Your task to perform on an android device: Open ESPN.com Image 0: 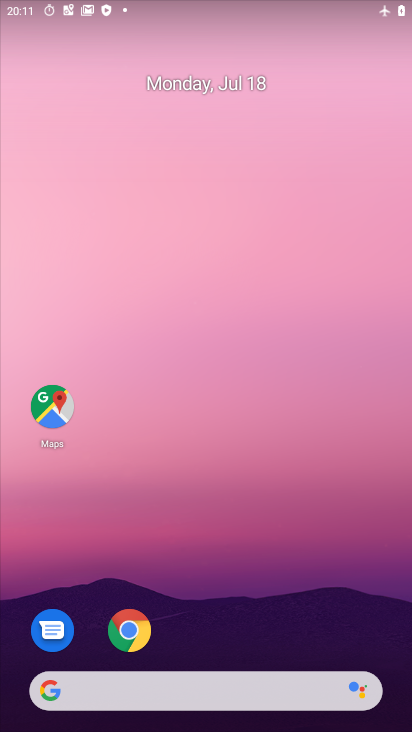
Step 0: drag from (286, 589) to (254, 154)
Your task to perform on an android device: Open ESPN.com Image 1: 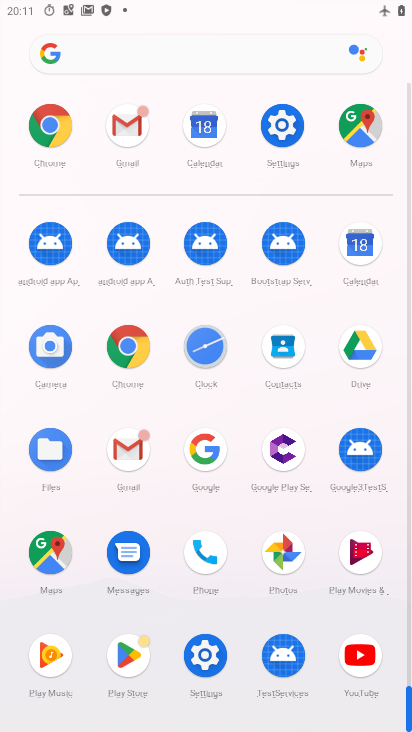
Step 1: click (80, 126)
Your task to perform on an android device: Open ESPN.com Image 2: 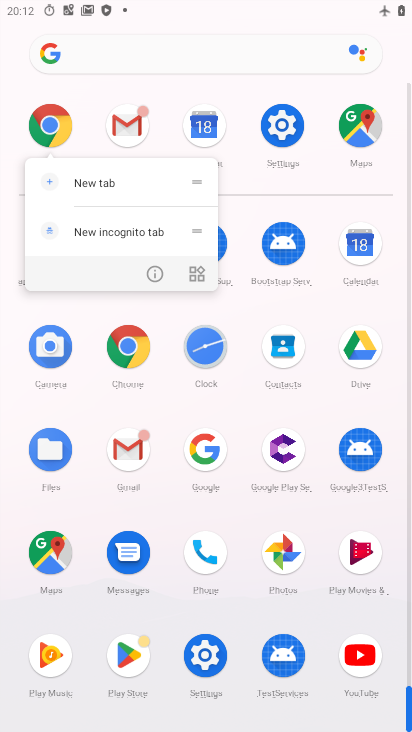
Step 2: click (150, 350)
Your task to perform on an android device: Open ESPN.com Image 3: 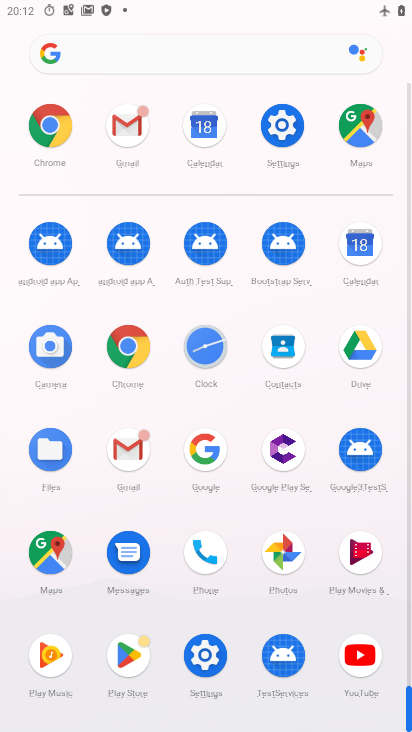
Step 3: click (141, 354)
Your task to perform on an android device: Open ESPN.com Image 4: 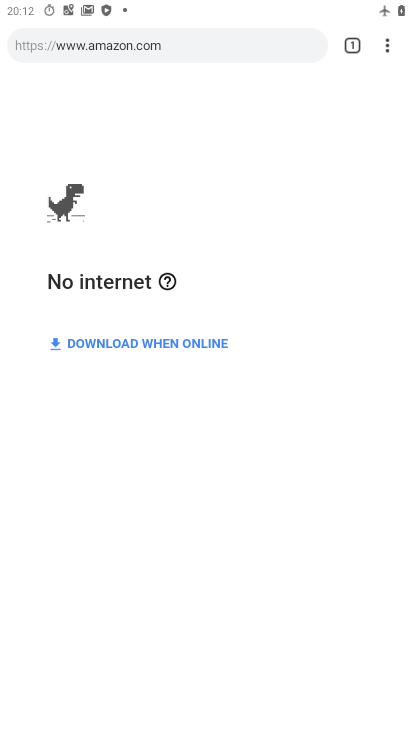
Step 4: task complete